Your task to perform on an android device: turn off notifications in google photos Image 0: 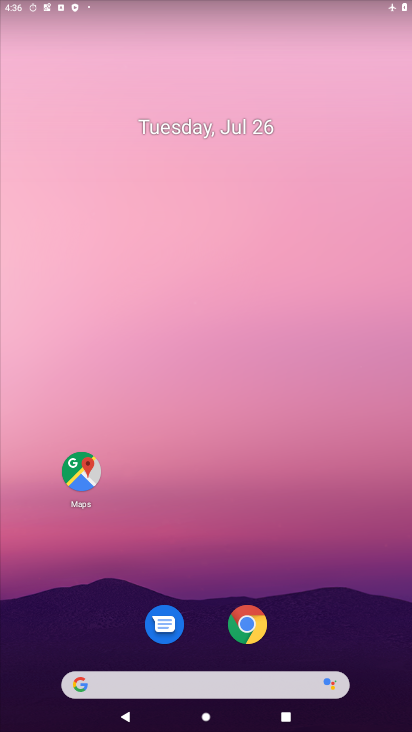
Step 0: drag from (290, 658) to (290, 49)
Your task to perform on an android device: turn off notifications in google photos Image 1: 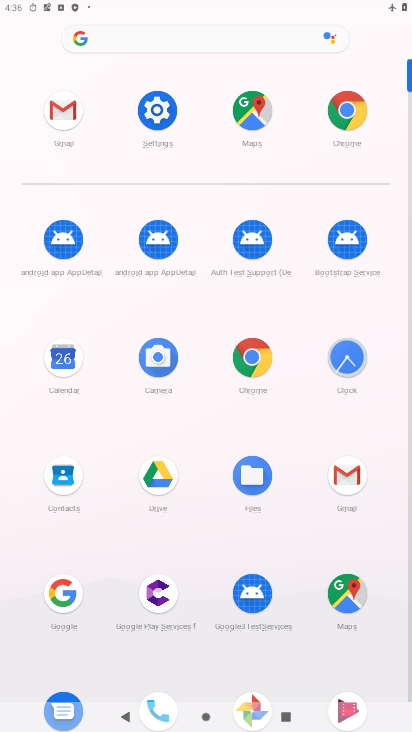
Step 1: drag from (271, 642) to (303, 394)
Your task to perform on an android device: turn off notifications in google photos Image 2: 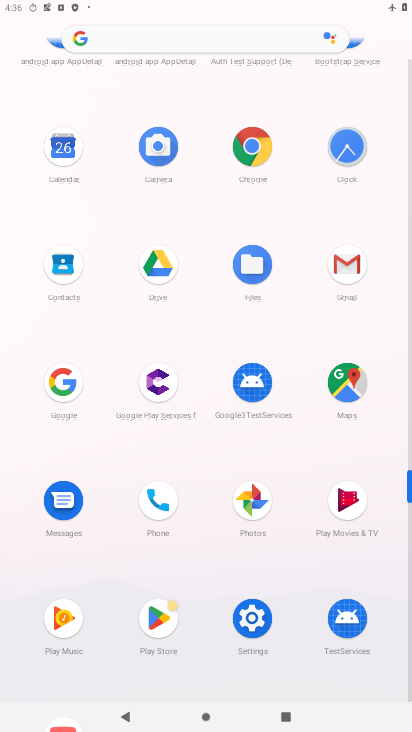
Step 2: click (261, 507)
Your task to perform on an android device: turn off notifications in google photos Image 3: 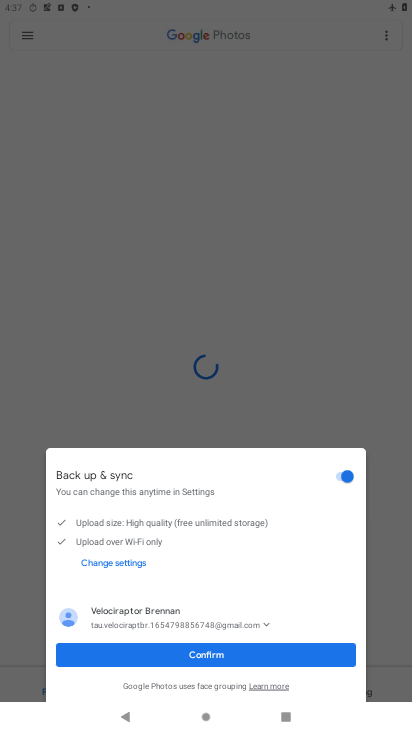
Step 3: click (170, 653)
Your task to perform on an android device: turn off notifications in google photos Image 4: 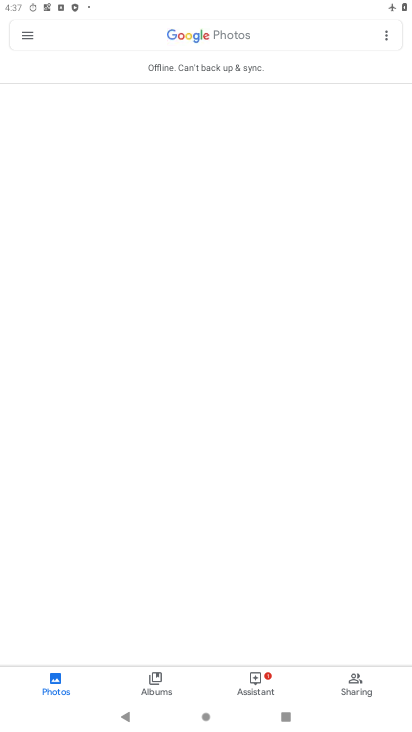
Step 4: click (32, 35)
Your task to perform on an android device: turn off notifications in google photos Image 5: 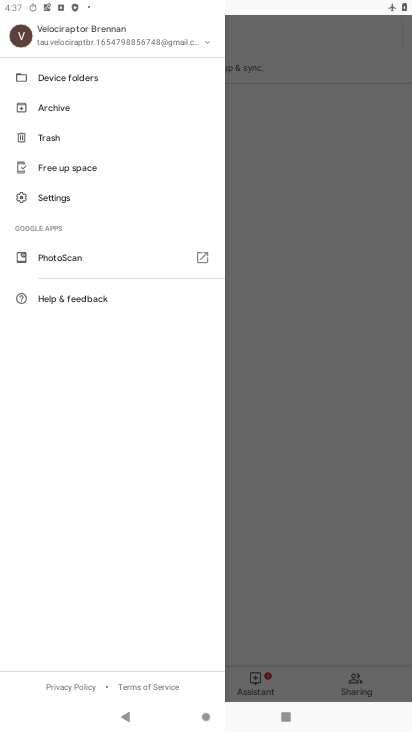
Step 5: click (70, 196)
Your task to perform on an android device: turn off notifications in google photos Image 6: 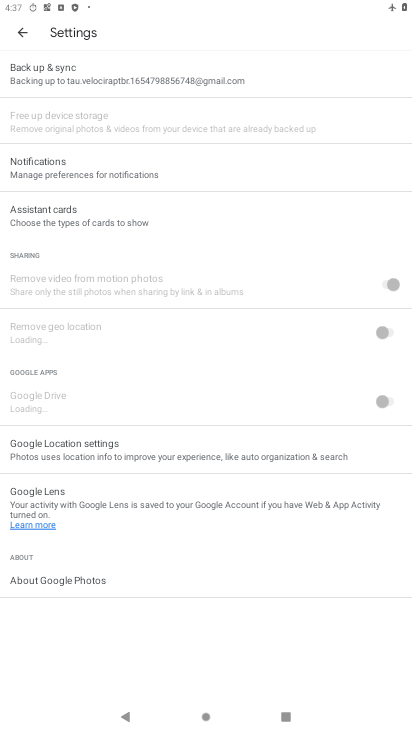
Step 6: click (76, 175)
Your task to perform on an android device: turn off notifications in google photos Image 7: 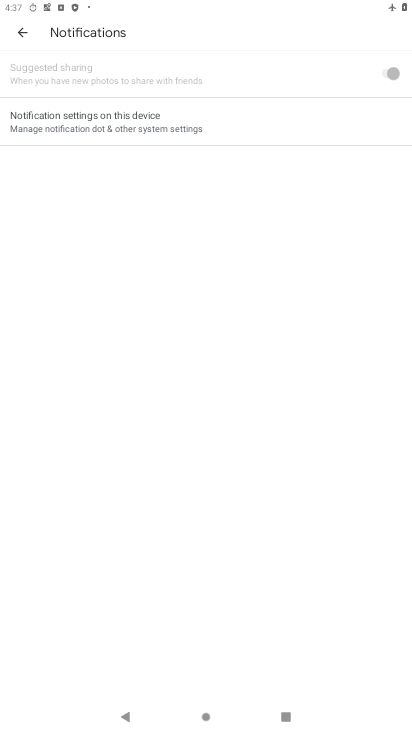
Step 7: click (255, 131)
Your task to perform on an android device: turn off notifications in google photos Image 8: 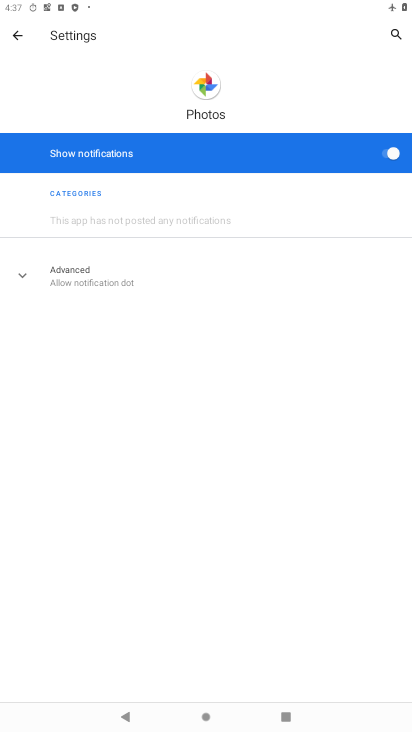
Step 8: click (381, 150)
Your task to perform on an android device: turn off notifications in google photos Image 9: 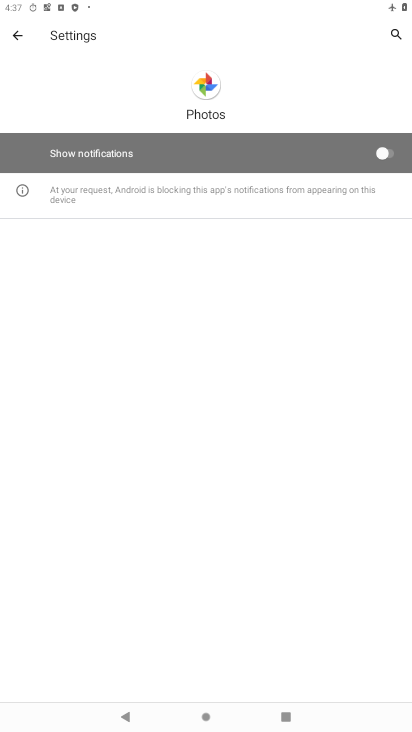
Step 9: task complete